Your task to perform on an android device: find which apps use the phone's location Image 0: 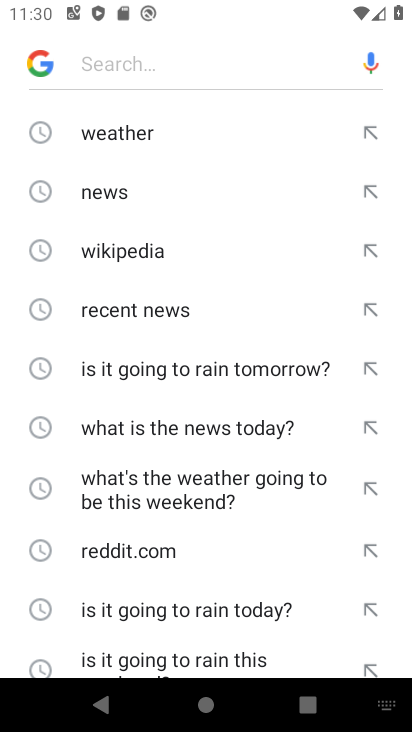
Step 0: press home button
Your task to perform on an android device: find which apps use the phone's location Image 1: 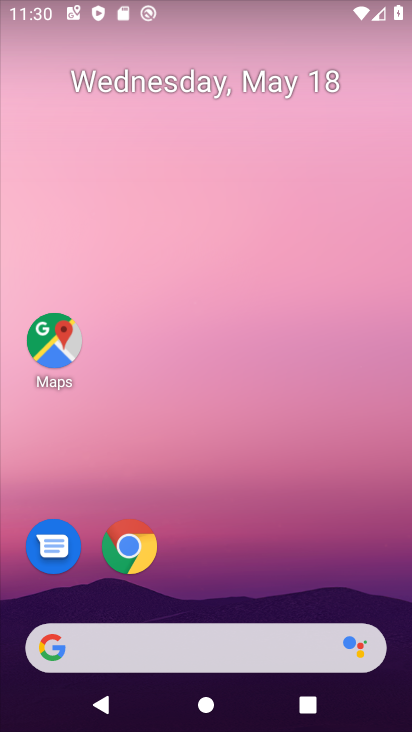
Step 1: drag from (245, 564) to (285, 39)
Your task to perform on an android device: find which apps use the phone's location Image 2: 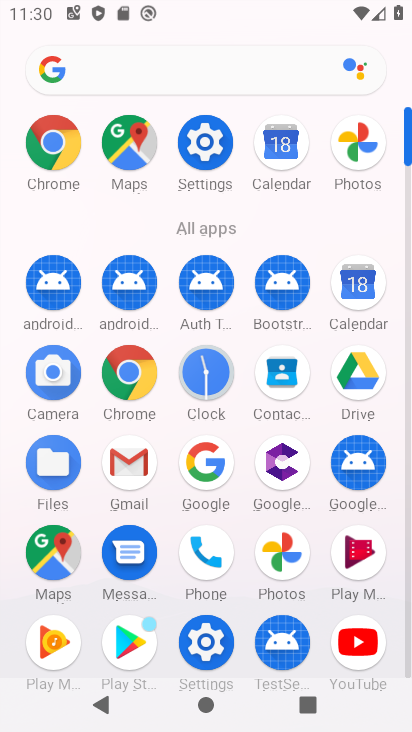
Step 2: click (211, 135)
Your task to perform on an android device: find which apps use the phone's location Image 3: 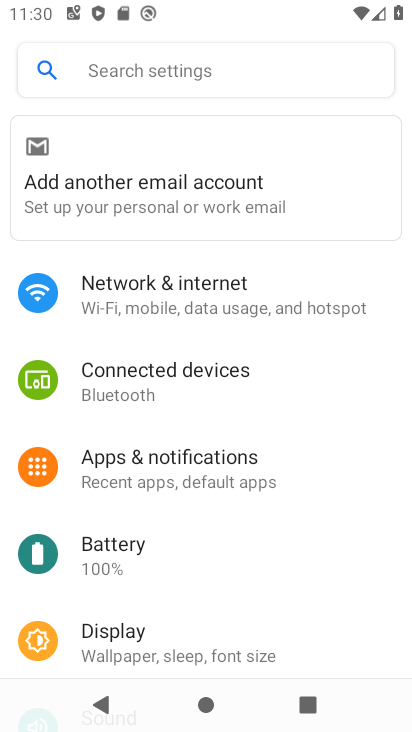
Step 3: drag from (228, 603) to (209, 211)
Your task to perform on an android device: find which apps use the phone's location Image 4: 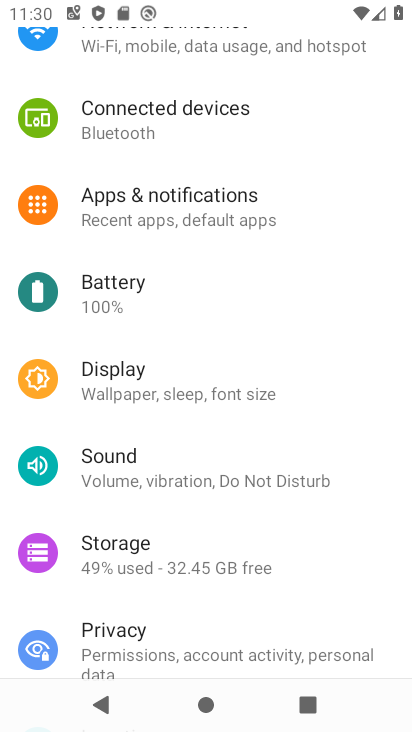
Step 4: drag from (216, 562) to (240, 170)
Your task to perform on an android device: find which apps use the phone's location Image 5: 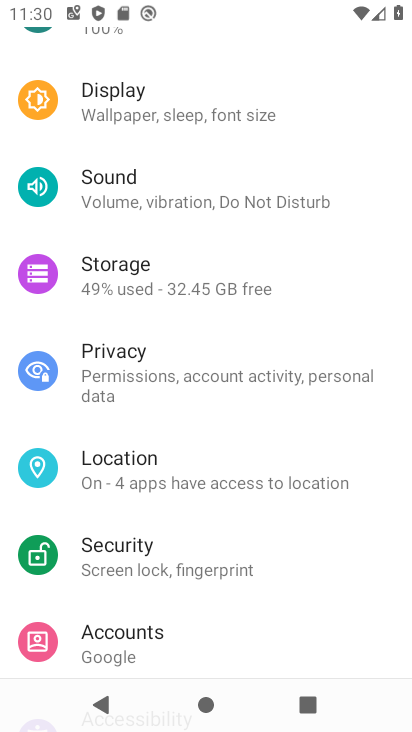
Step 5: click (154, 483)
Your task to perform on an android device: find which apps use the phone's location Image 6: 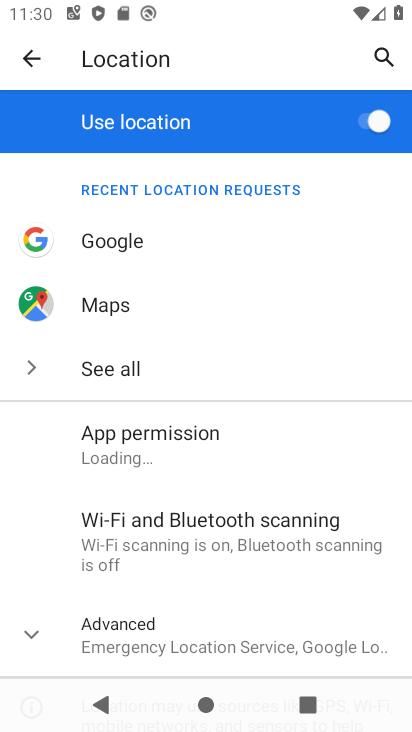
Step 6: click (142, 434)
Your task to perform on an android device: find which apps use the phone's location Image 7: 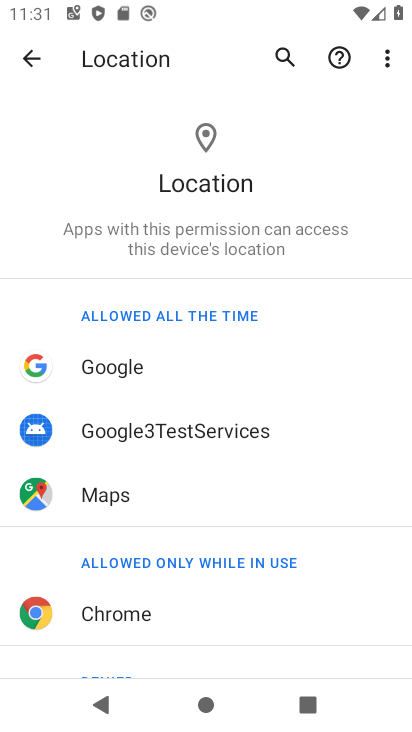
Step 7: task complete